Your task to perform on an android device: turn on airplane mode Image 0: 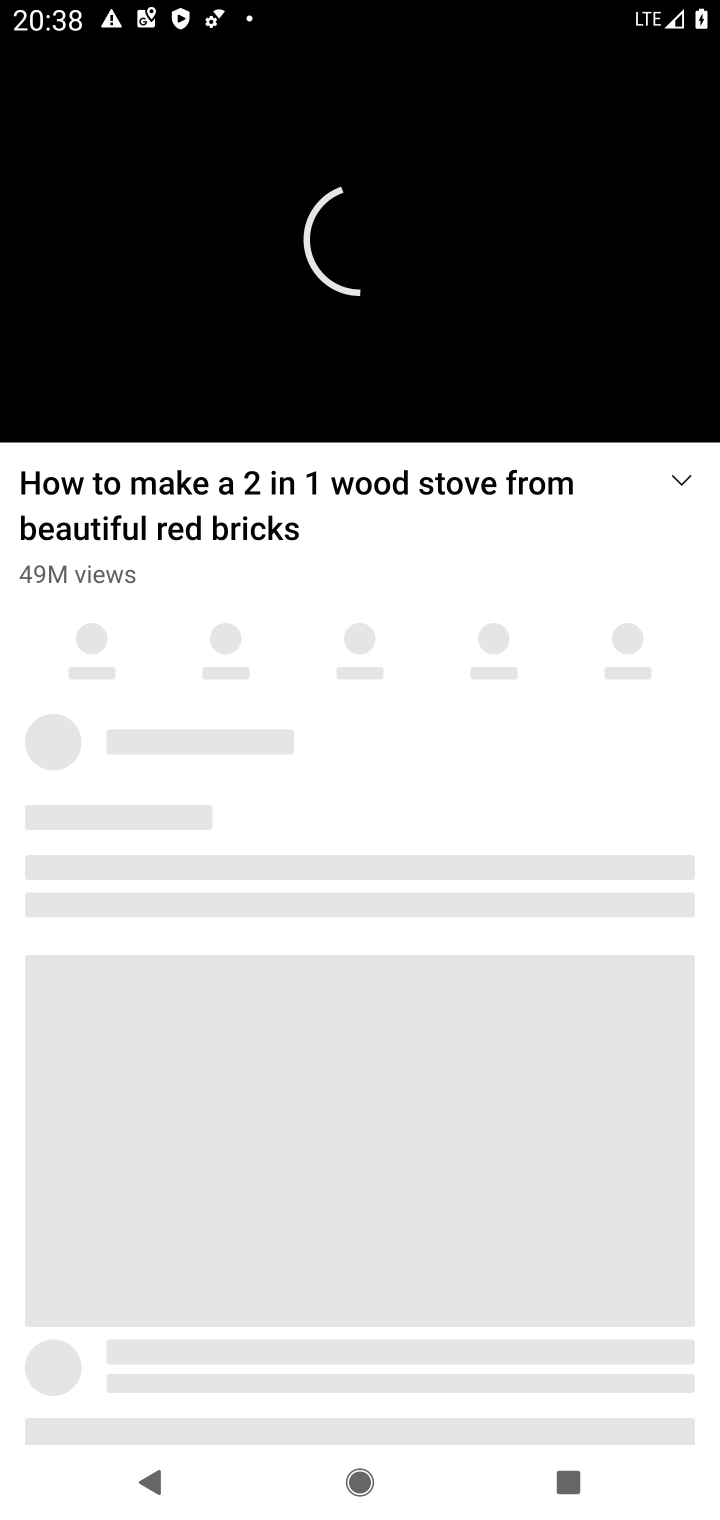
Step 0: press home button
Your task to perform on an android device: turn on airplane mode Image 1: 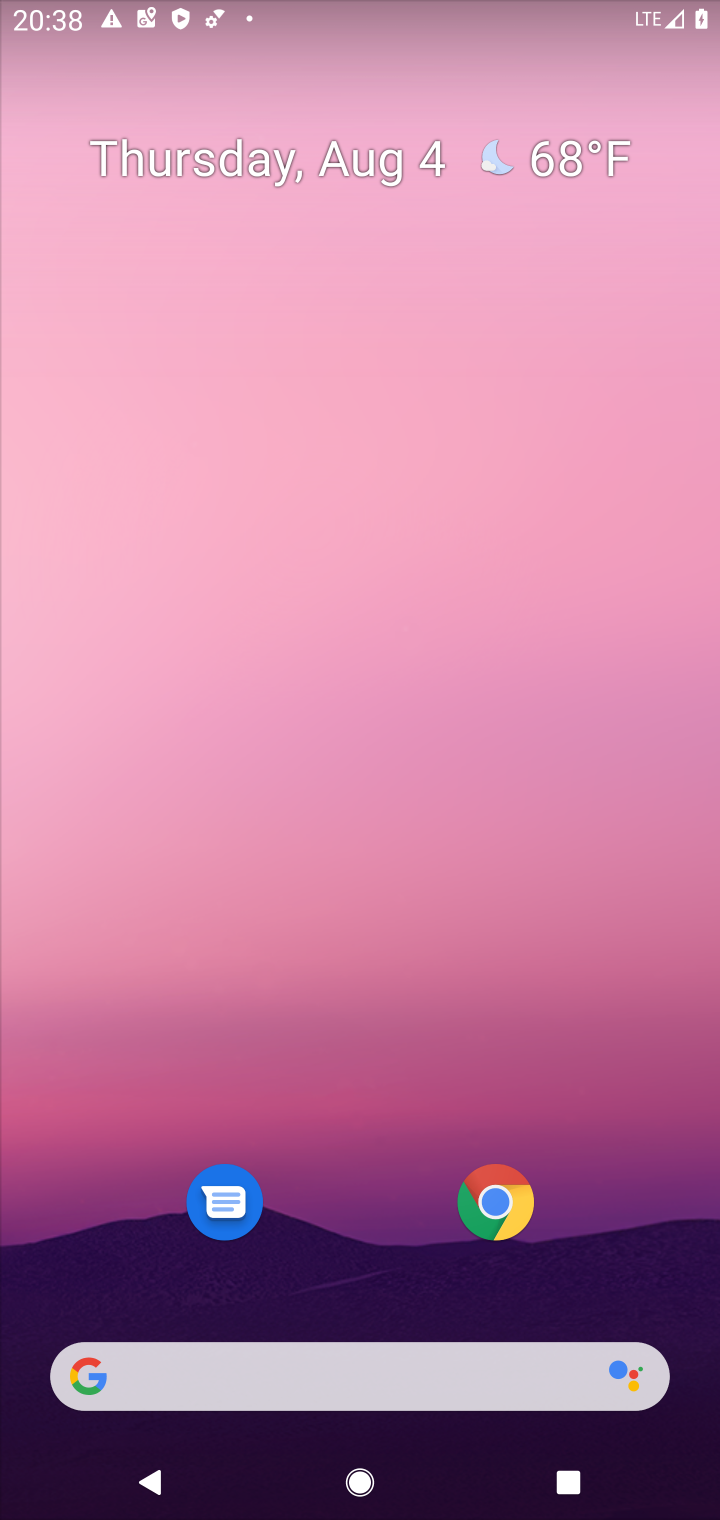
Step 1: drag from (332, 1226) to (324, 397)
Your task to perform on an android device: turn on airplane mode Image 2: 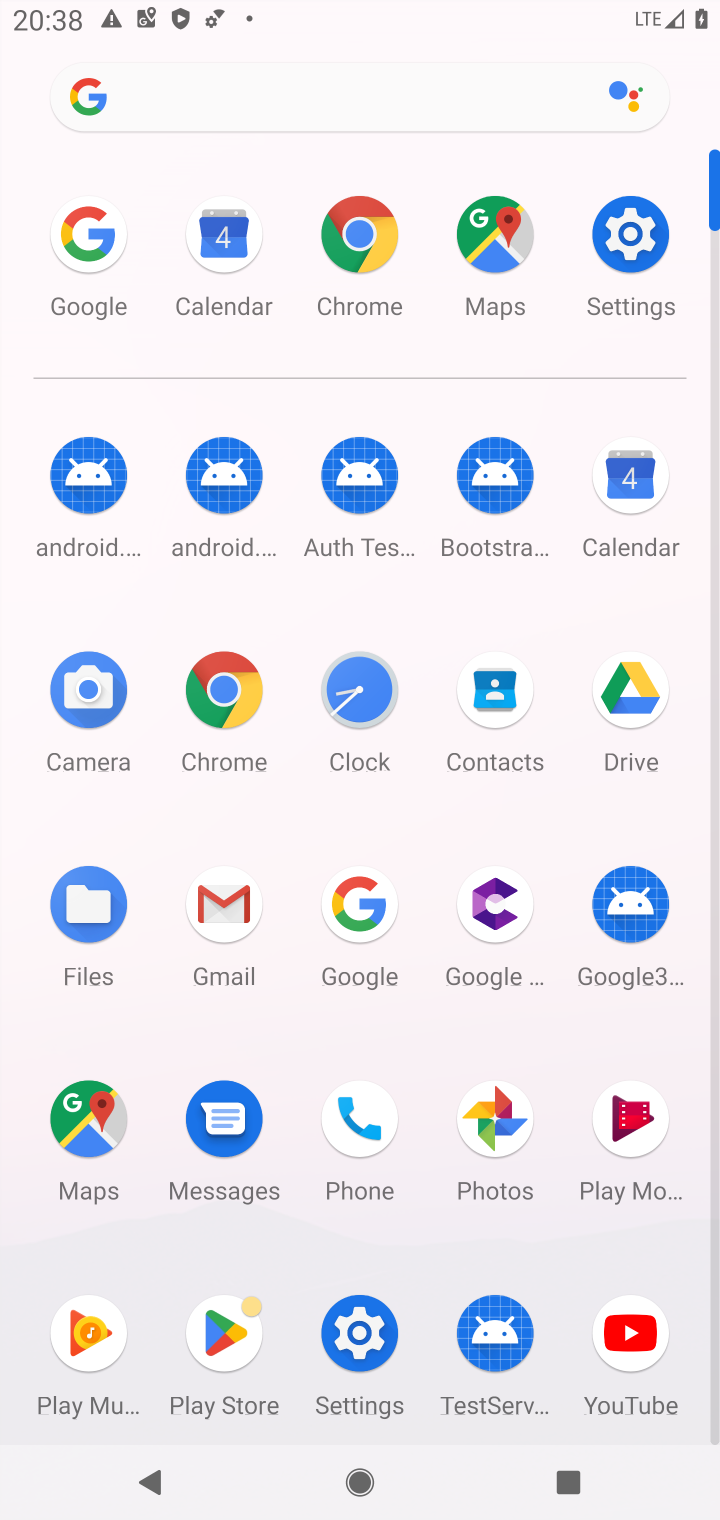
Step 2: click (623, 287)
Your task to perform on an android device: turn on airplane mode Image 3: 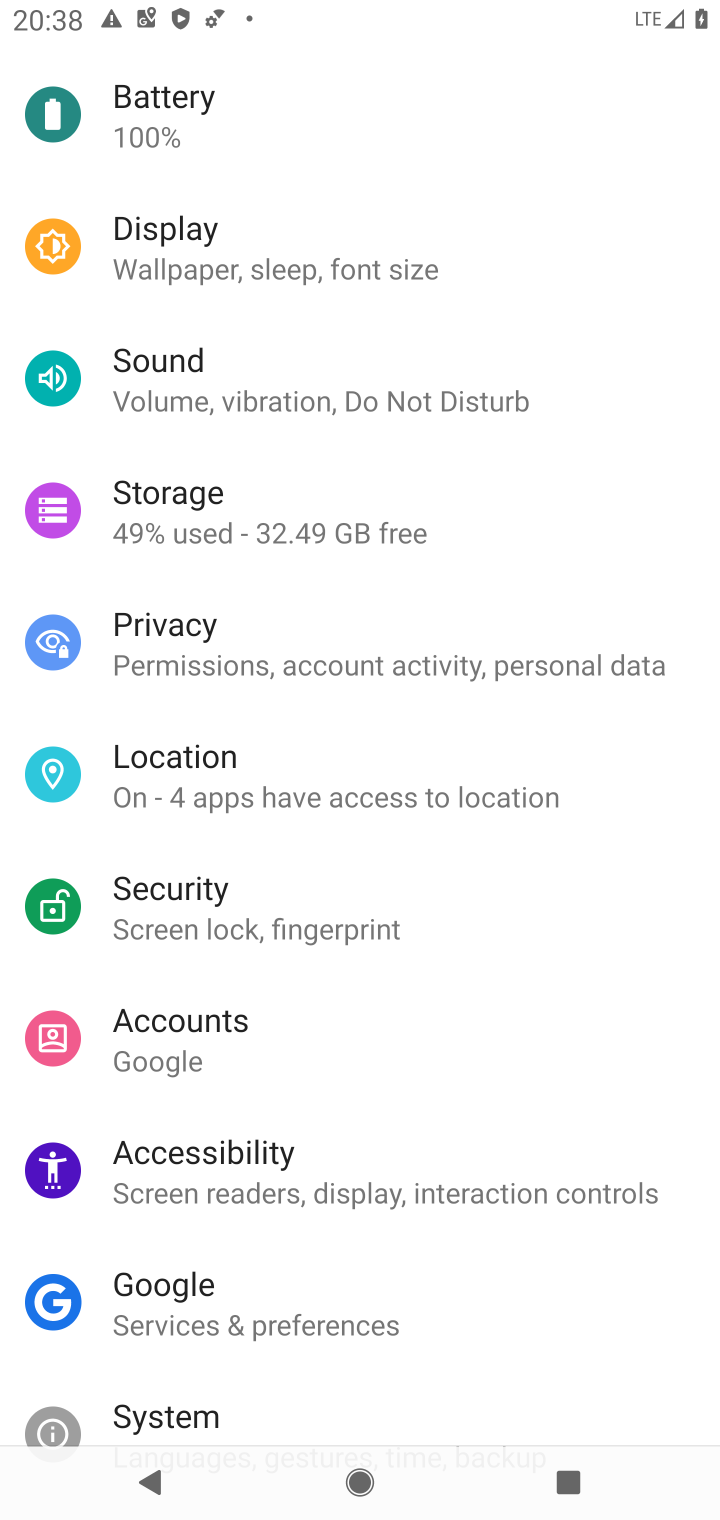
Step 3: drag from (300, 440) to (344, 1176)
Your task to perform on an android device: turn on airplane mode Image 4: 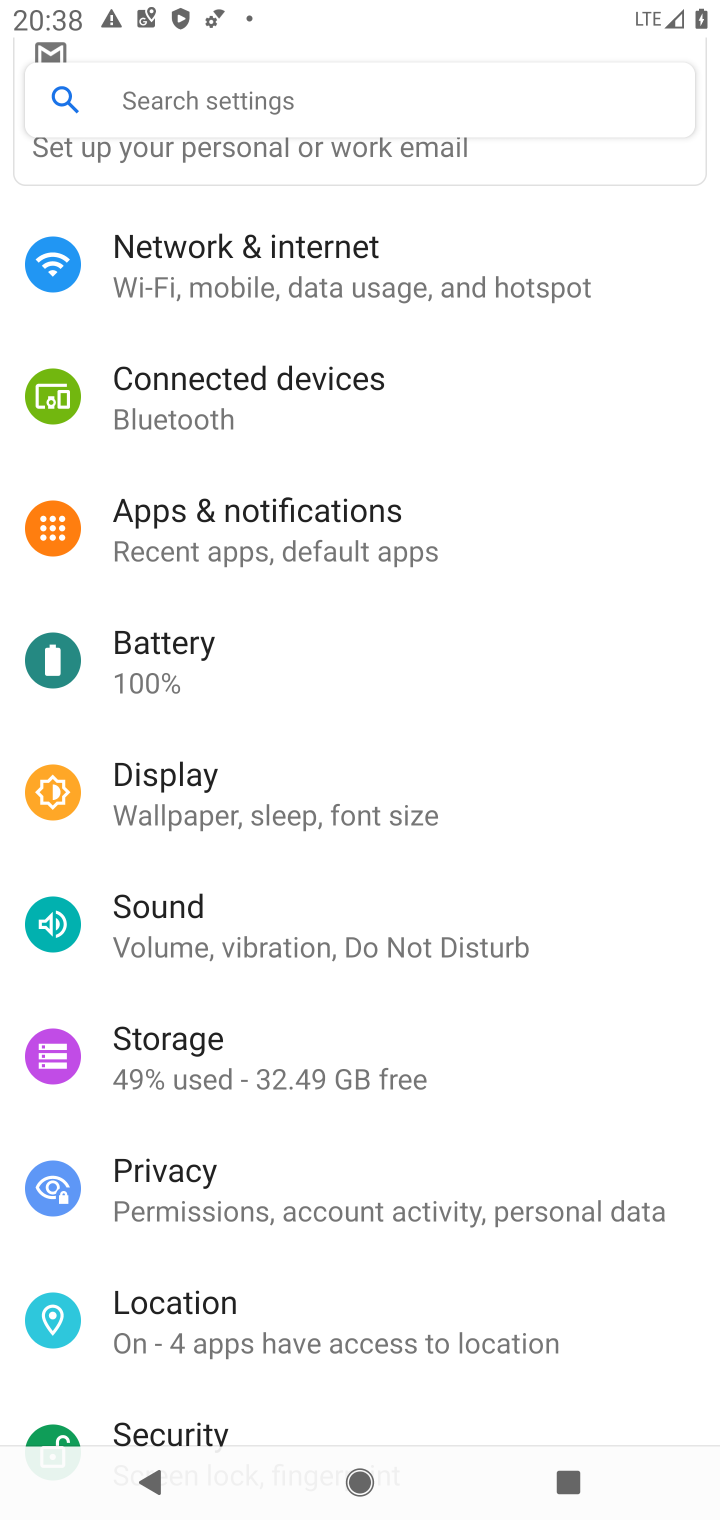
Step 4: click (299, 301)
Your task to perform on an android device: turn on airplane mode Image 5: 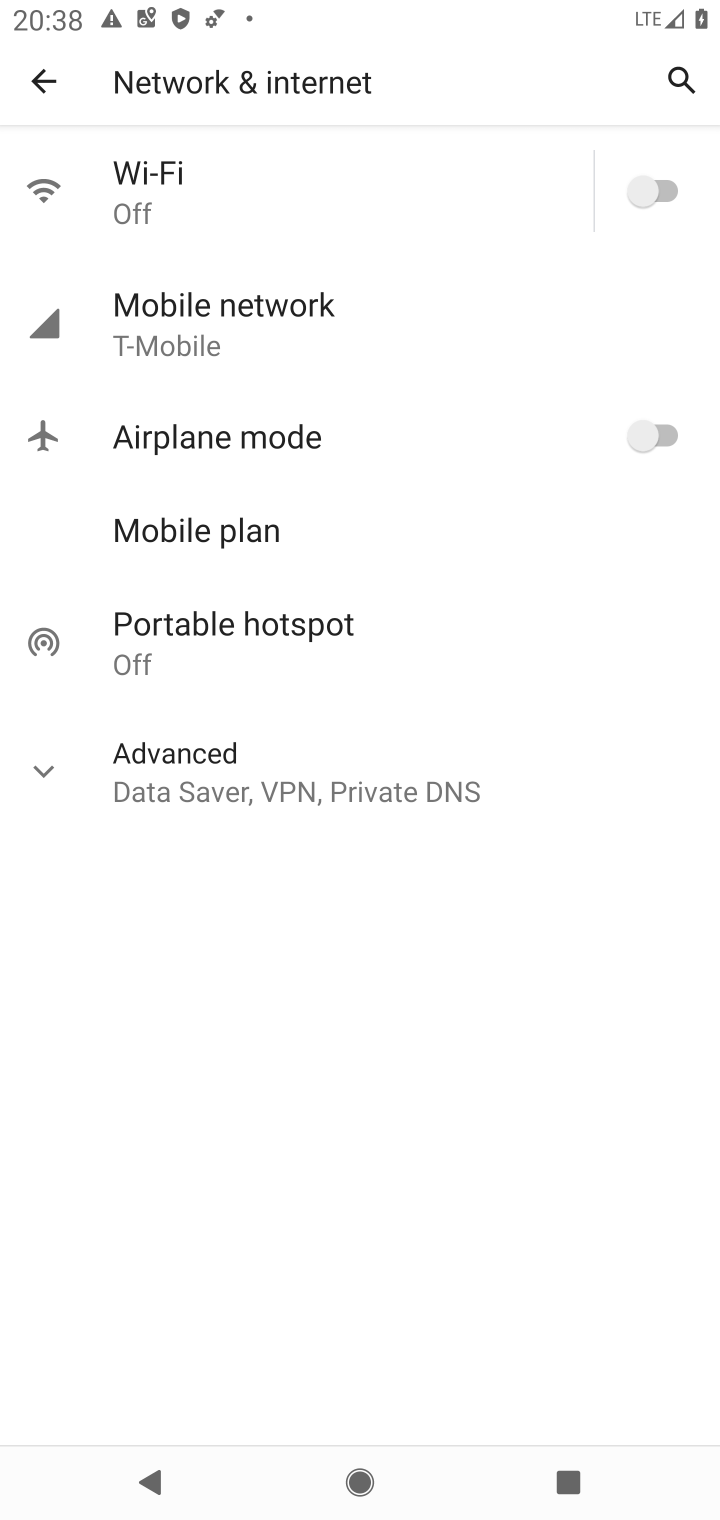
Step 5: click (679, 431)
Your task to perform on an android device: turn on airplane mode Image 6: 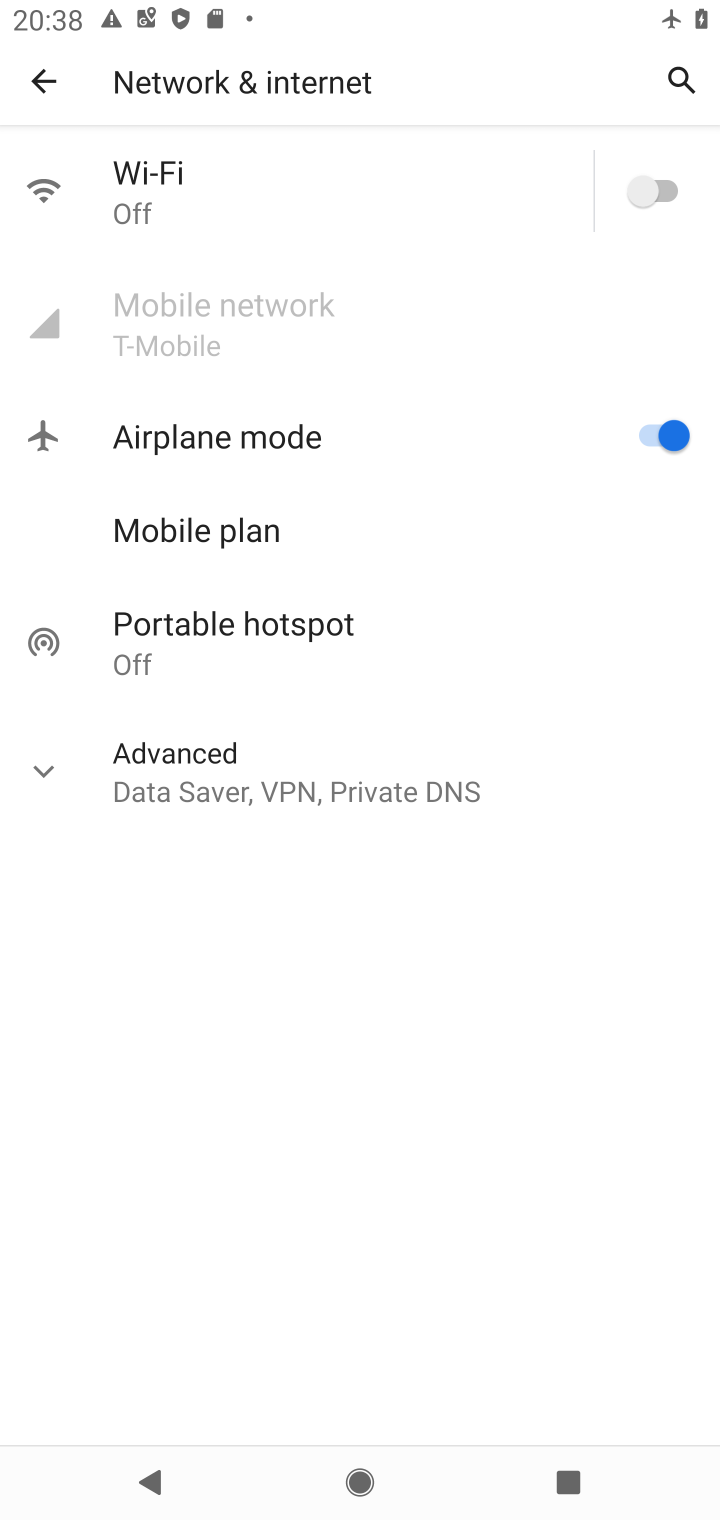
Step 6: task complete